Your task to perform on an android device: change the clock style Image 0: 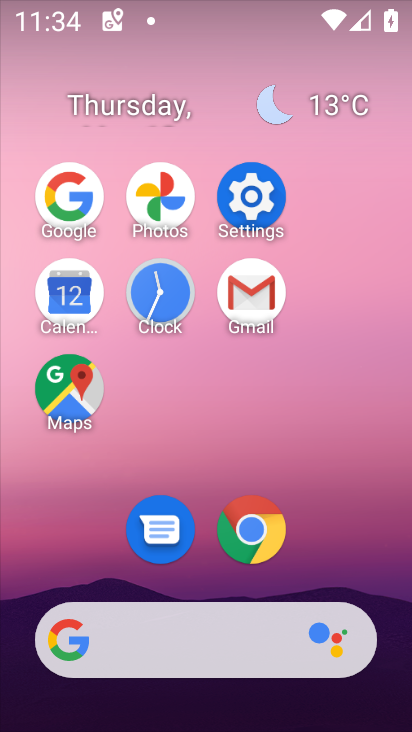
Step 0: click (145, 296)
Your task to perform on an android device: change the clock style Image 1: 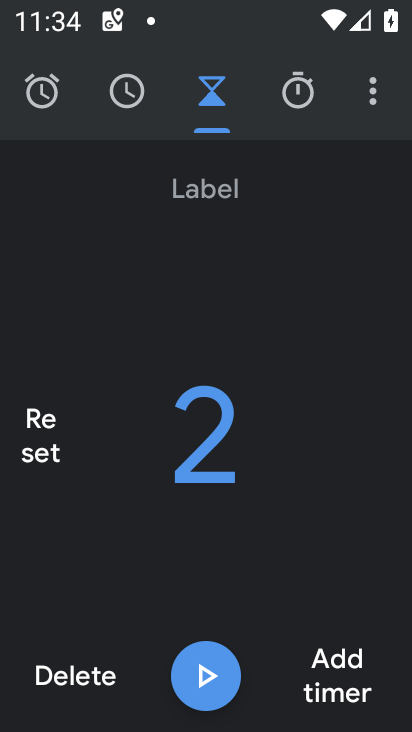
Step 1: click (377, 87)
Your task to perform on an android device: change the clock style Image 2: 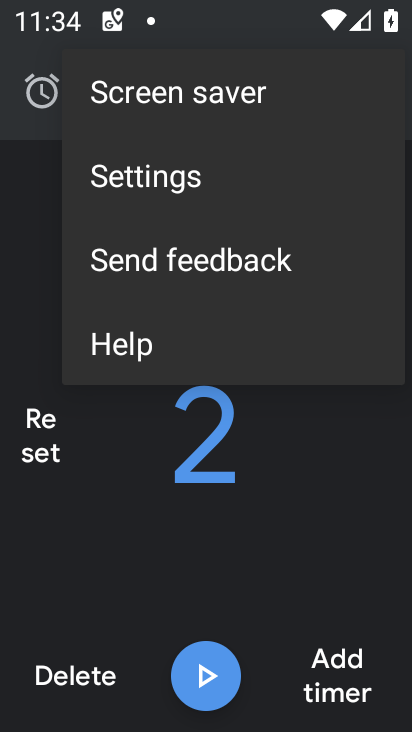
Step 2: click (243, 190)
Your task to perform on an android device: change the clock style Image 3: 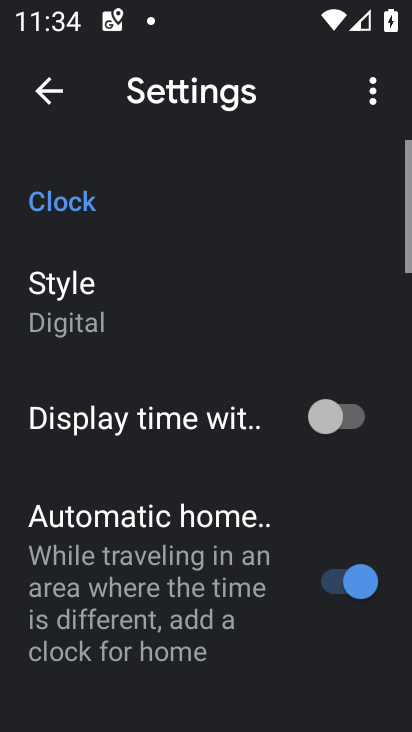
Step 3: click (94, 306)
Your task to perform on an android device: change the clock style Image 4: 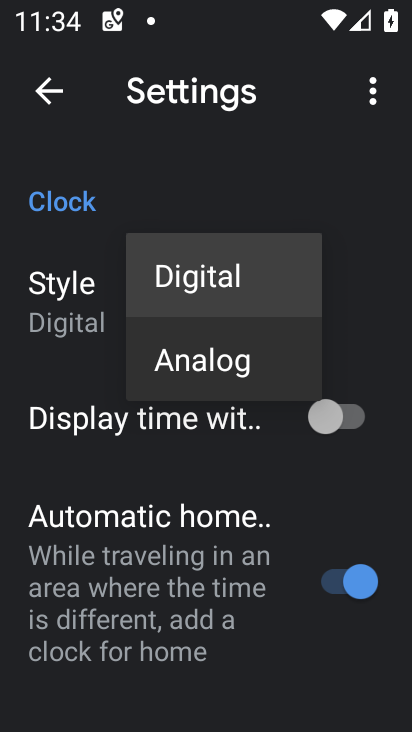
Step 4: click (262, 357)
Your task to perform on an android device: change the clock style Image 5: 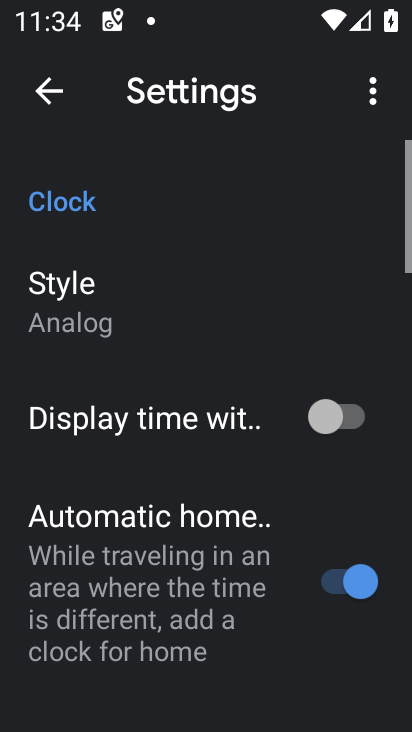
Step 5: task complete